Your task to perform on an android device: Open Android settings Image 0: 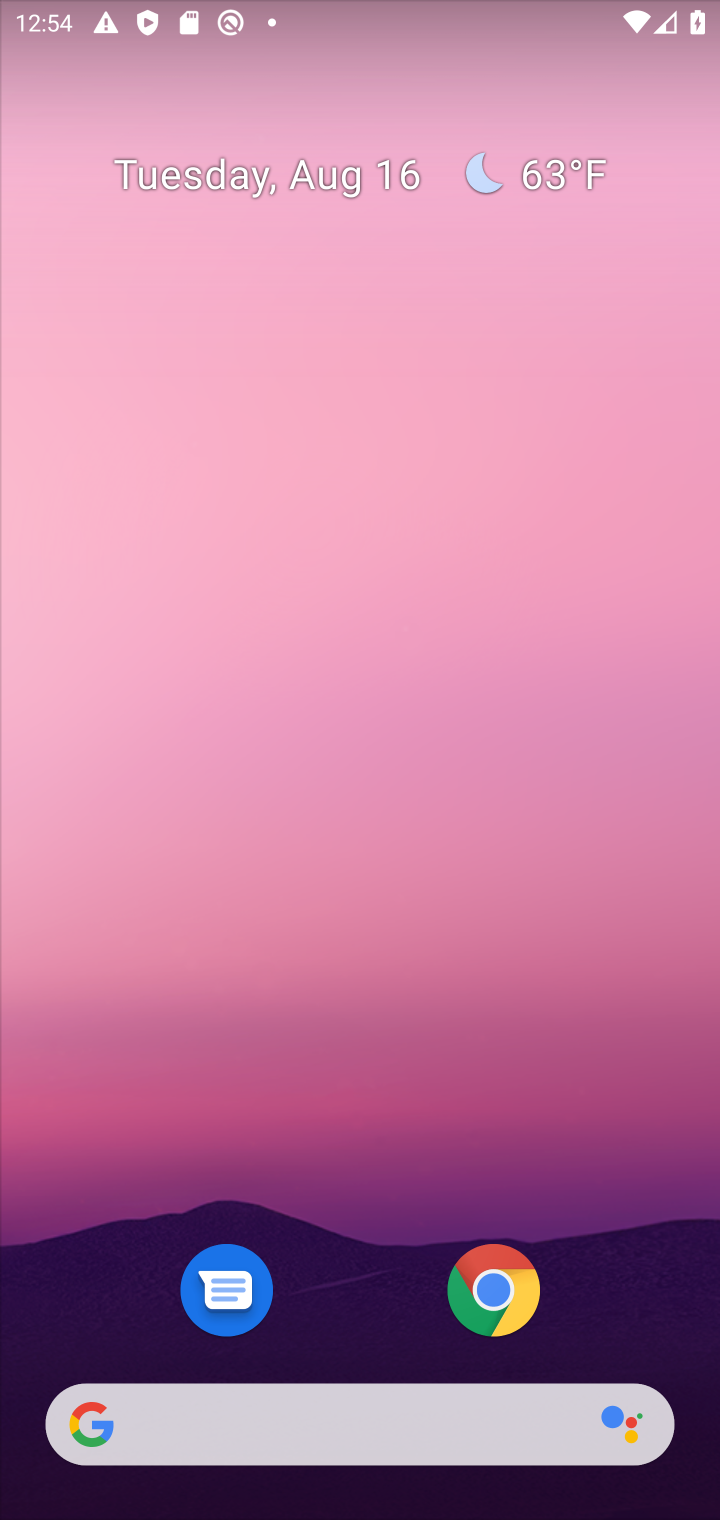
Step 0: click (450, 89)
Your task to perform on an android device: Open Android settings Image 1: 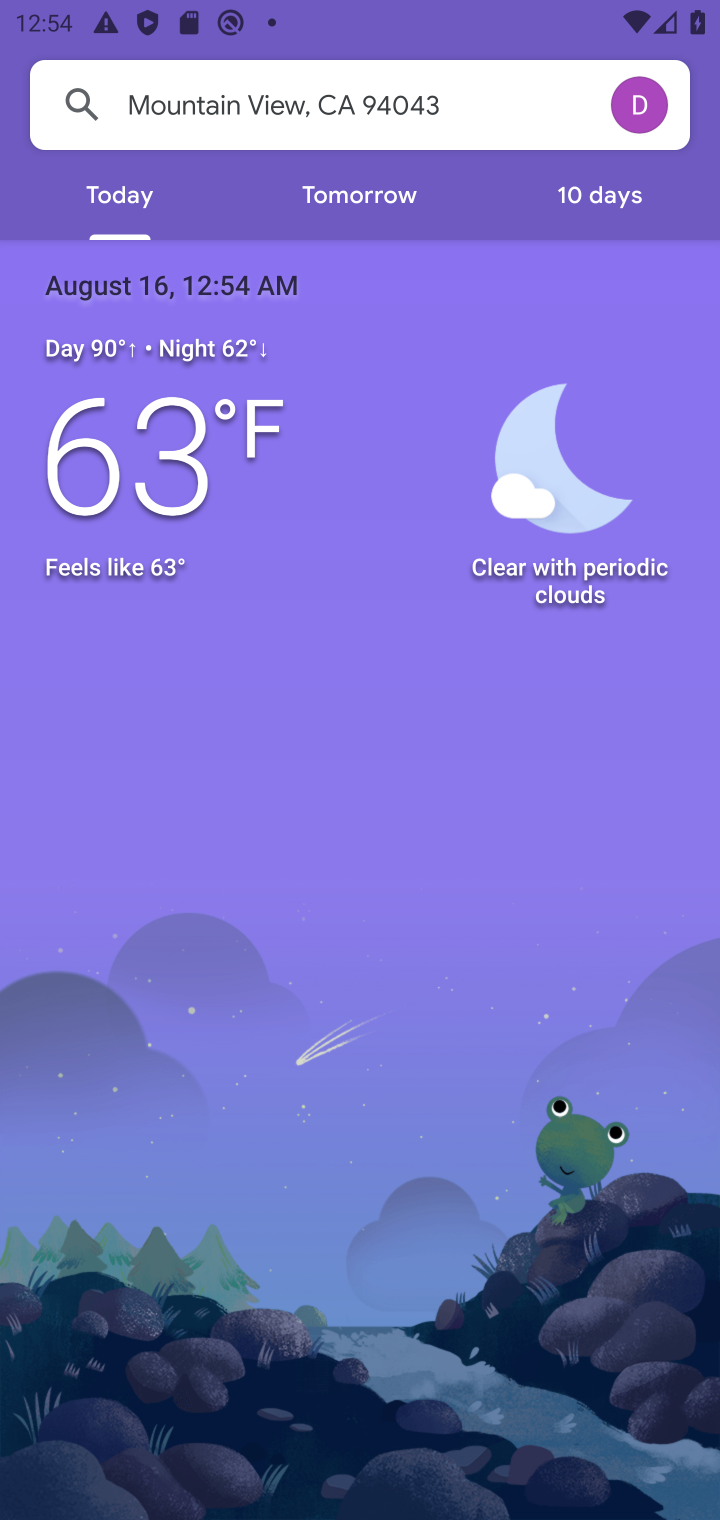
Step 1: press home button
Your task to perform on an android device: Open Android settings Image 2: 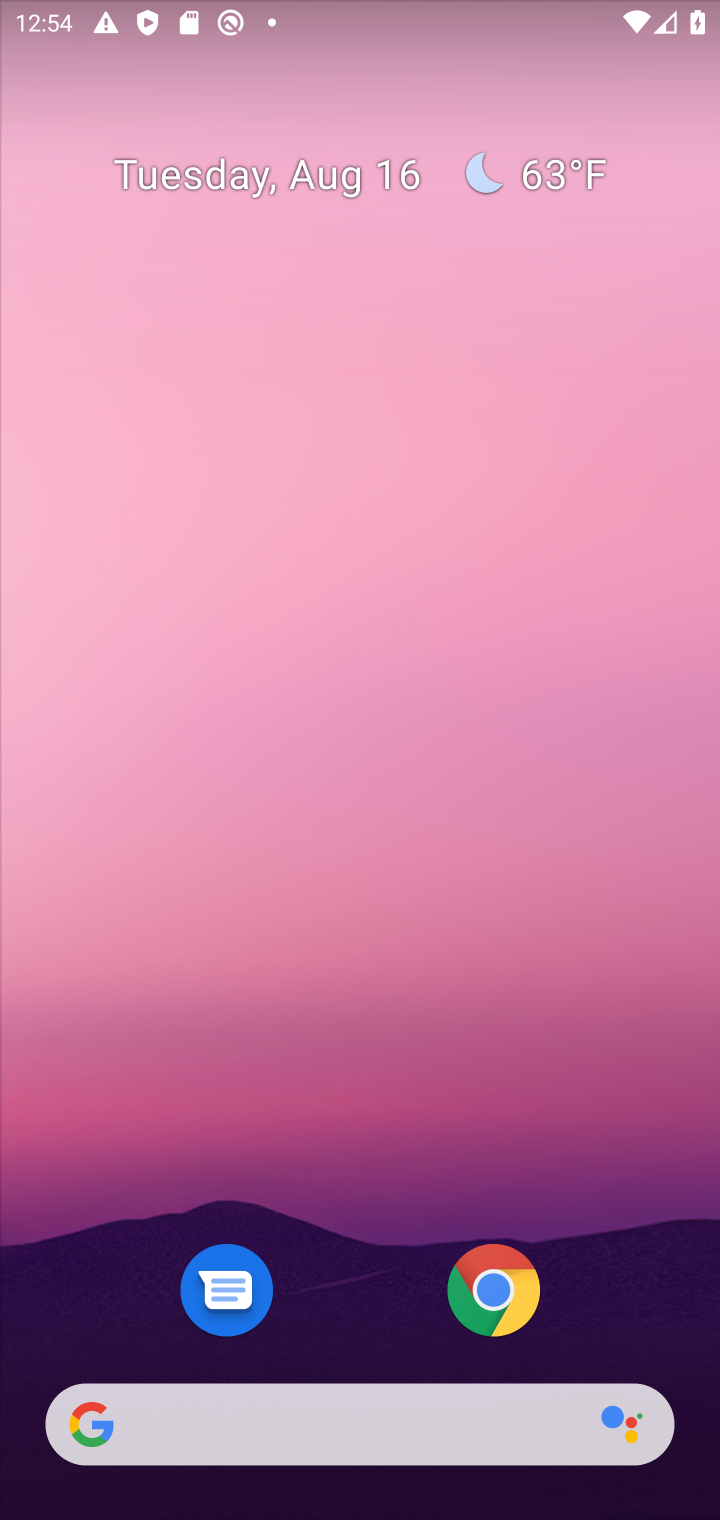
Step 2: drag from (155, 1161) to (466, 31)
Your task to perform on an android device: Open Android settings Image 3: 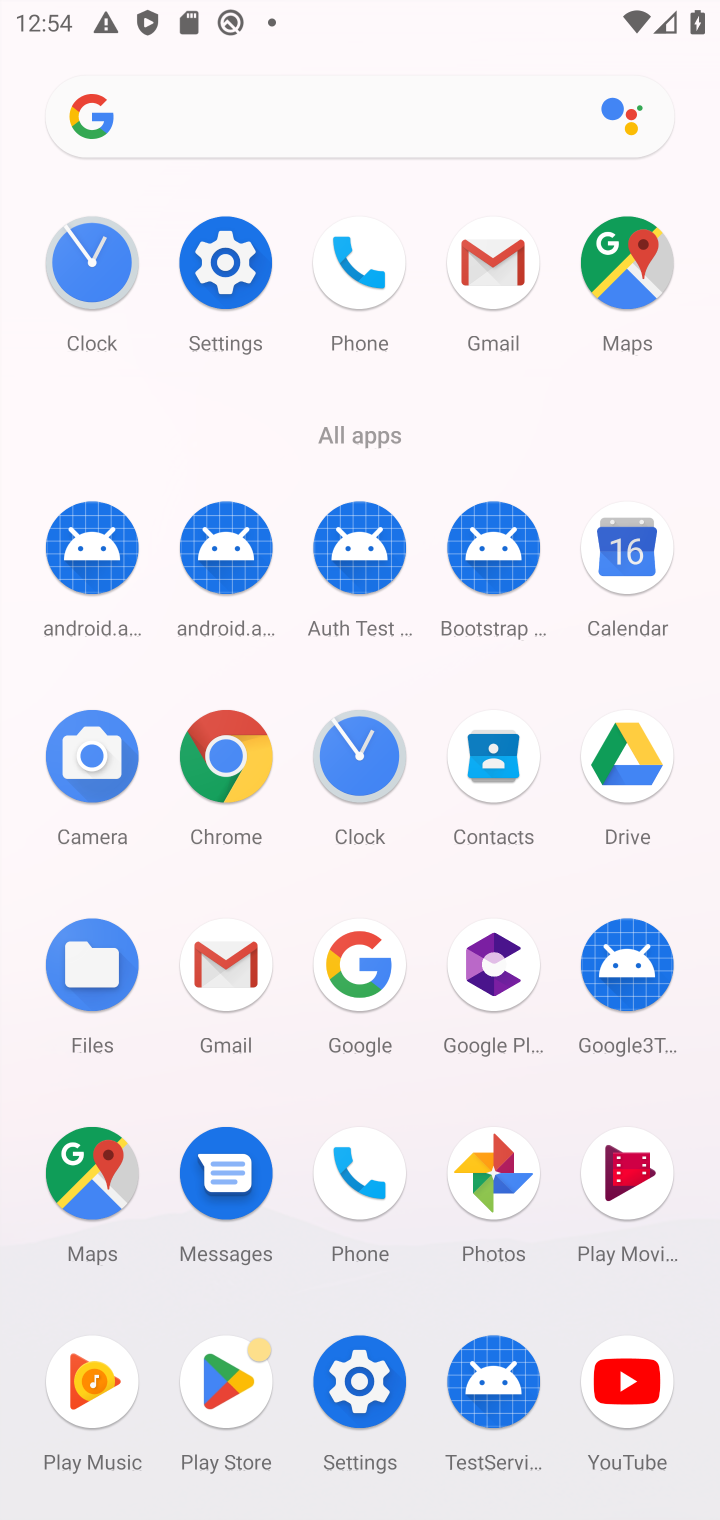
Step 3: click (215, 290)
Your task to perform on an android device: Open Android settings Image 4: 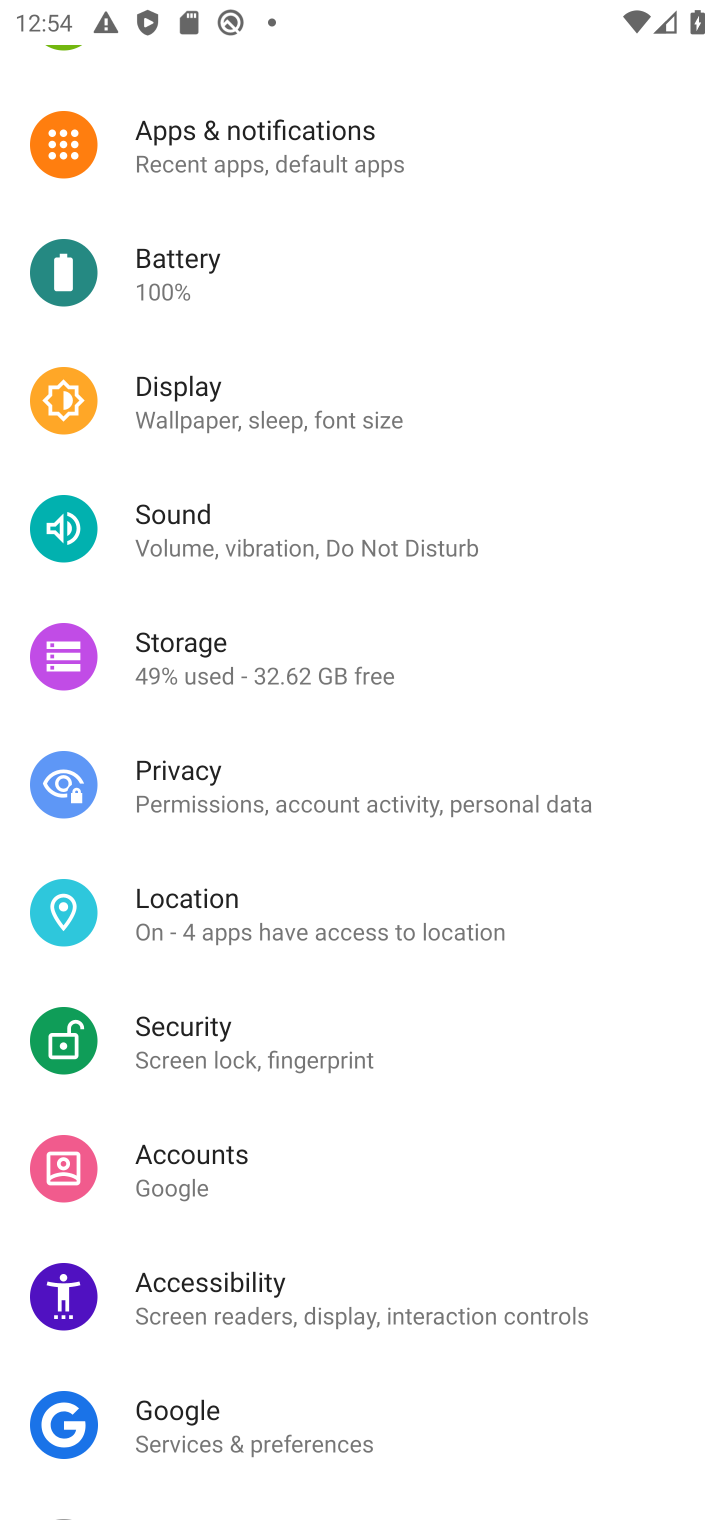
Step 4: task complete